Your task to perform on an android device: toggle priority inbox in the gmail app Image 0: 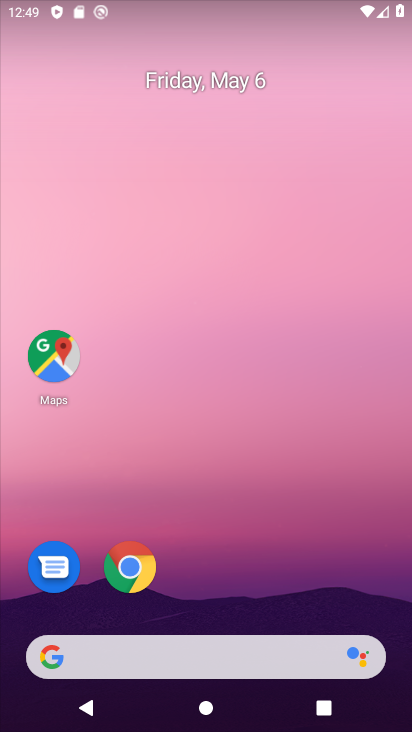
Step 0: drag from (242, 679) to (270, 305)
Your task to perform on an android device: toggle priority inbox in the gmail app Image 1: 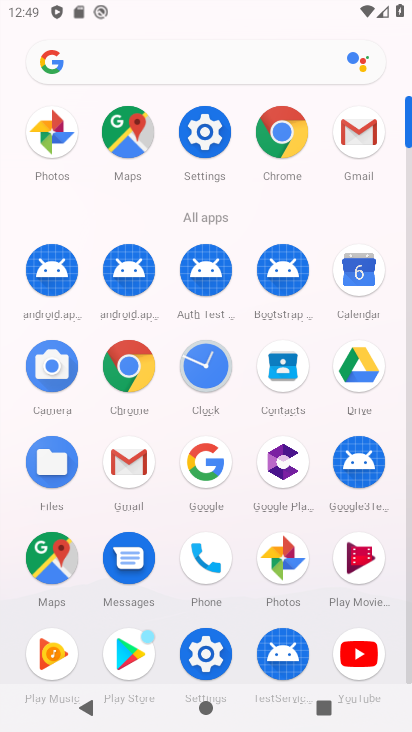
Step 1: click (135, 475)
Your task to perform on an android device: toggle priority inbox in the gmail app Image 2: 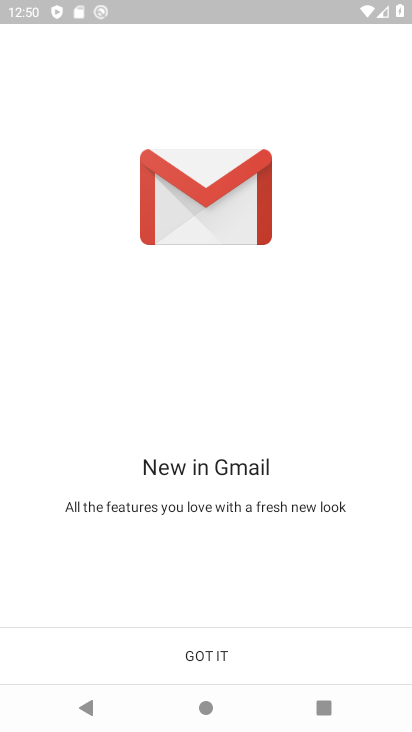
Step 2: click (152, 663)
Your task to perform on an android device: toggle priority inbox in the gmail app Image 3: 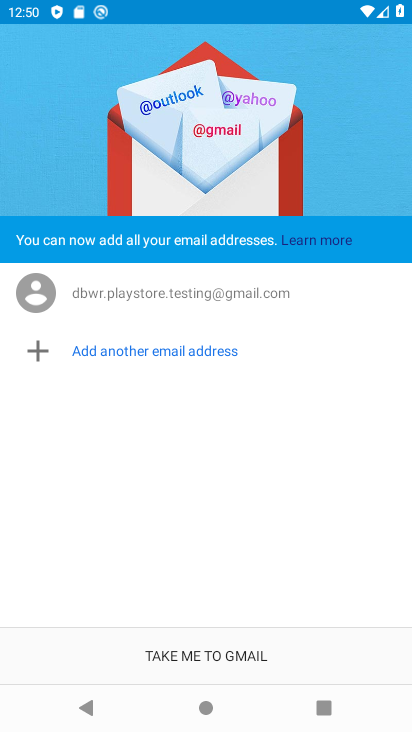
Step 3: click (198, 665)
Your task to perform on an android device: toggle priority inbox in the gmail app Image 4: 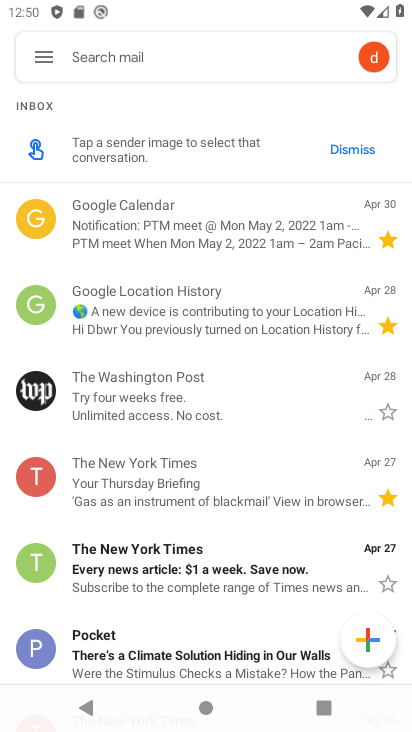
Step 4: drag from (242, 616) to (240, 544)
Your task to perform on an android device: toggle priority inbox in the gmail app Image 5: 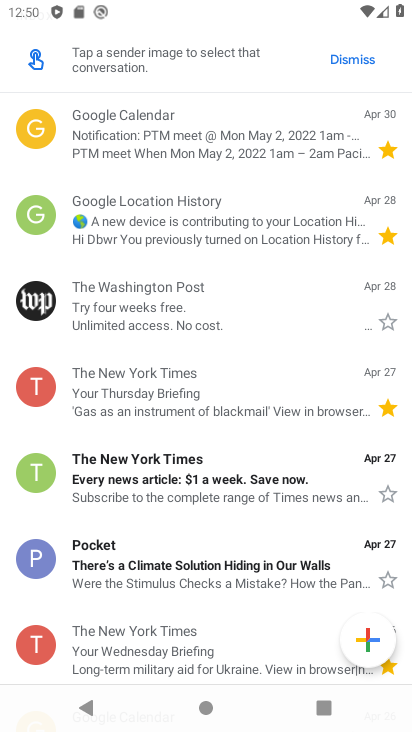
Step 5: drag from (120, 132) to (129, 282)
Your task to perform on an android device: toggle priority inbox in the gmail app Image 6: 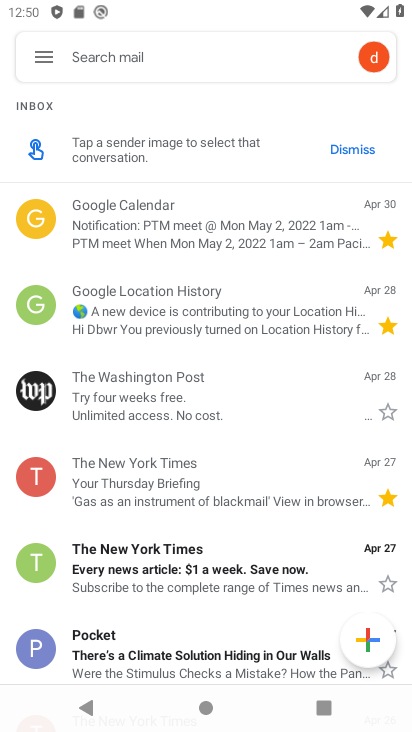
Step 6: click (33, 56)
Your task to perform on an android device: toggle priority inbox in the gmail app Image 7: 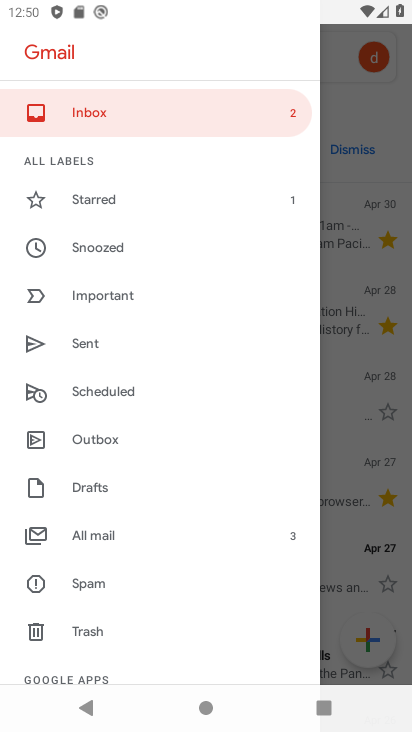
Step 7: drag from (113, 604) to (209, 398)
Your task to perform on an android device: toggle priority inbox in the gmail app Image 8: 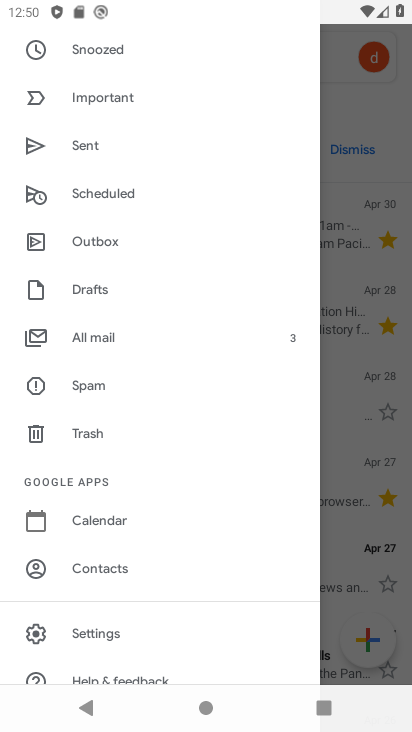
Step 8: click (102, 621)
Your task to perform on an android device: toggle priority inbox in the gmail app Image 9: 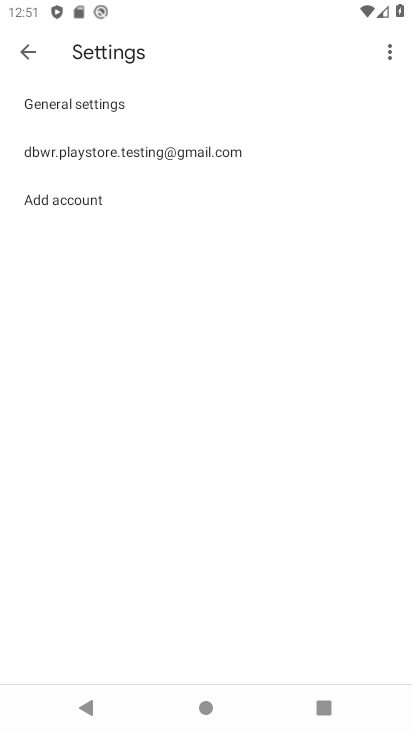
Step 9: click (167, 142)
Your task to perform on an android device: toggle priority inbox in the gmail app Image 10: 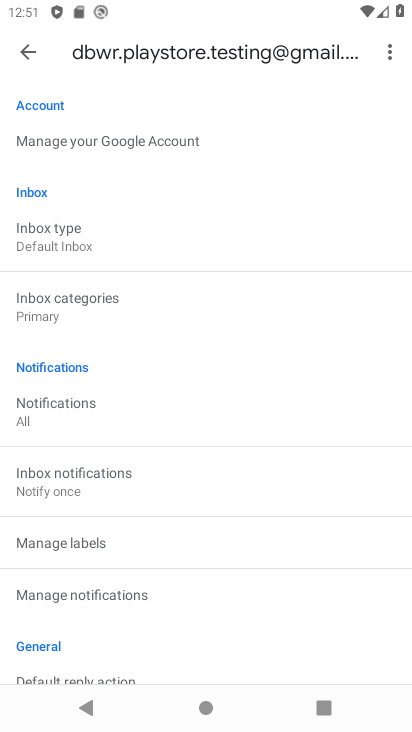
Step 10: drag from (152, 477) to (171, 415)
Your task to perform on an android device: toggle priority inbox in the gmail app Image 11: 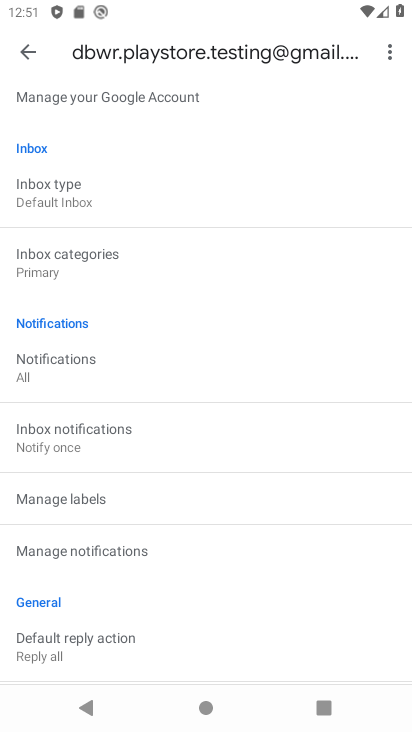
Step 11: click (144, 214)
Your task to perform on an android device: toggle priority inbox in the gmail app Image 12: 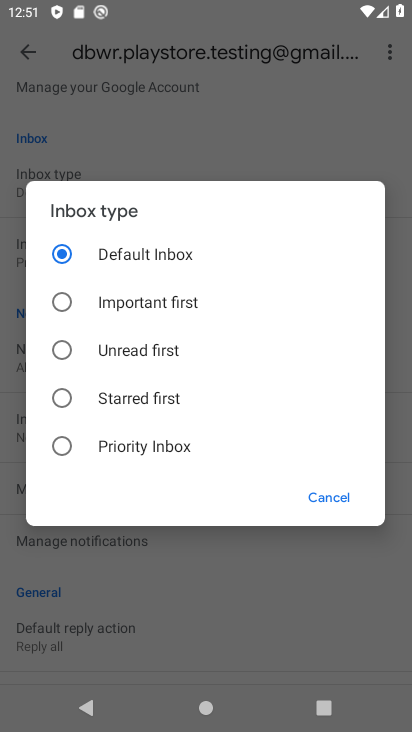
Step 12: click (148, 447)
Your task to perform on an android device: toggle priority inbox in the gmail app Image 13: 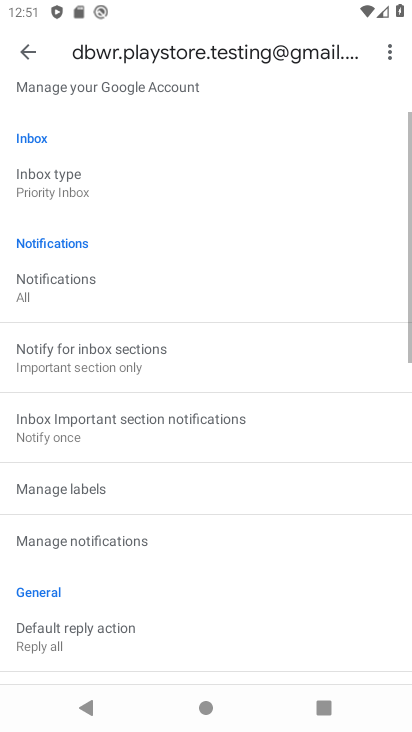
Step 13: click (140, 188)
Your task to perform on an android device: toggle priority inbox in the gmail app Image 14: 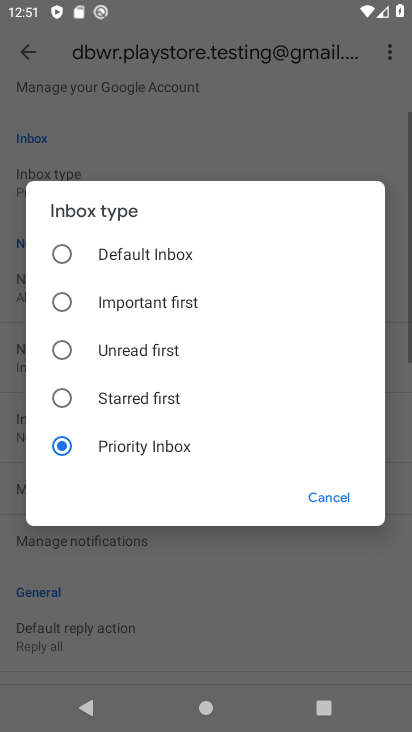
Step 14: task complete